Your task to perform on an android device: toggle translation in the chrome app Image 0: 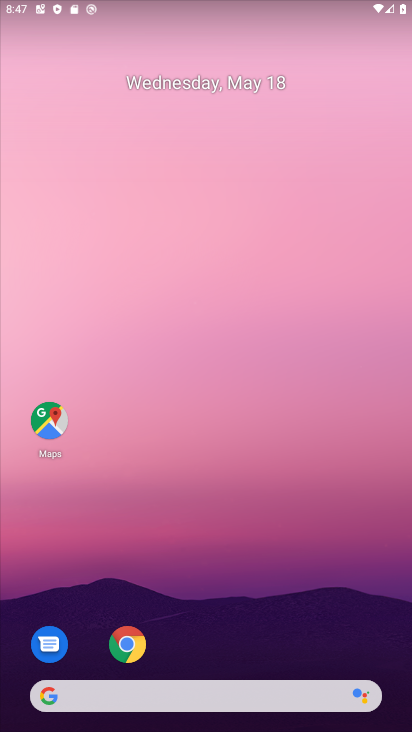
Step 0: click (128, 638)
Your task to perform on an android device: toggle translation in the chrome app Image 1: 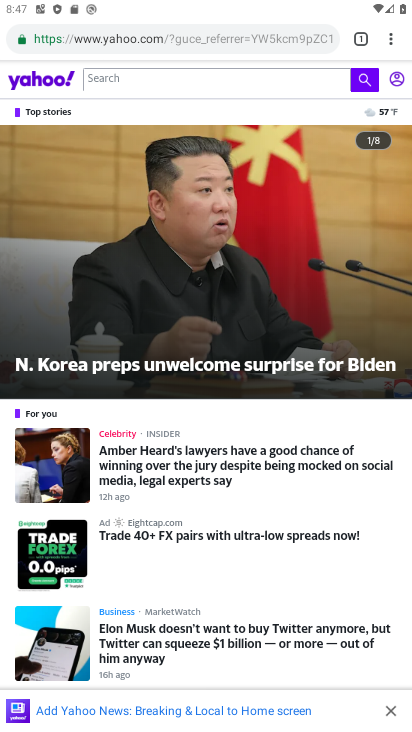
Step 1: click (386, 36)
Your task to perform on an android device: toggle translation in the chrome app Image 2: 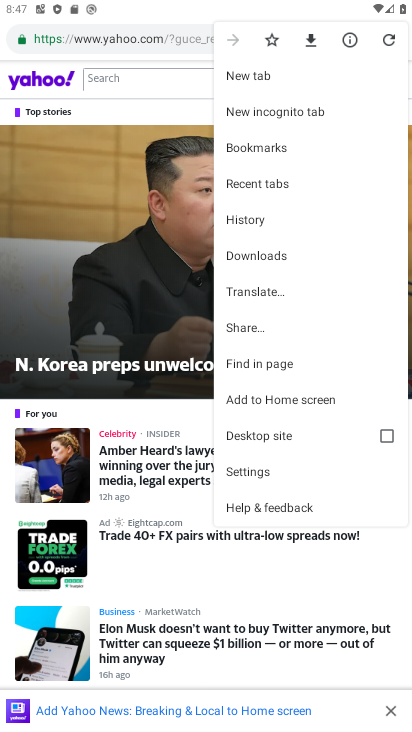
Step 2: click (261, 473)
Your task to perform on an android device: toggle translation in the chrome app Image 3: 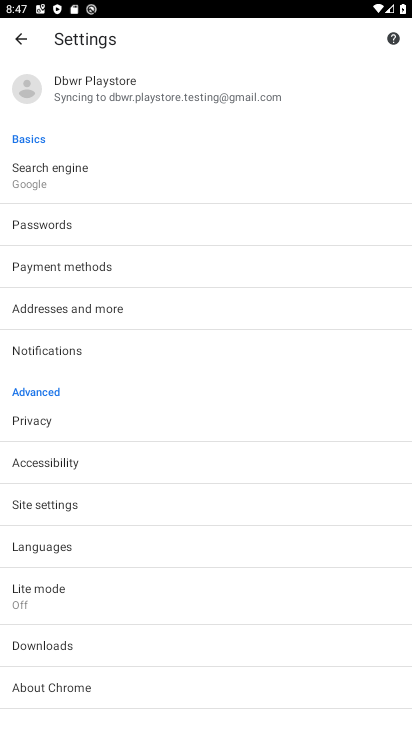
Step 3: click (94, 556)
Your task to perform on an android device: toggle translation in the chrome app Image 4: 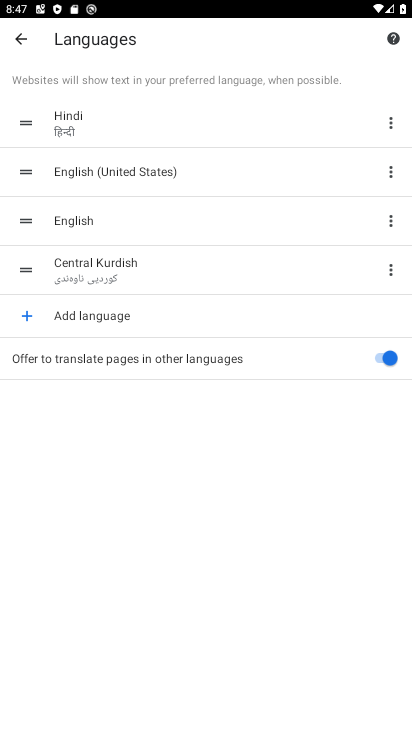
Step 4: click (381, 353)
Your task to perform on an android device: toggle translation in the chrome app Image 5: 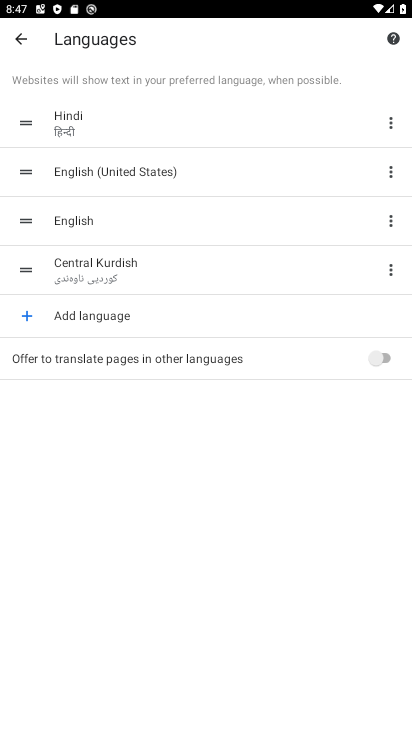
Step 5: task complete